Your task to perform on an android device: clear history in the chrome app Image 0: 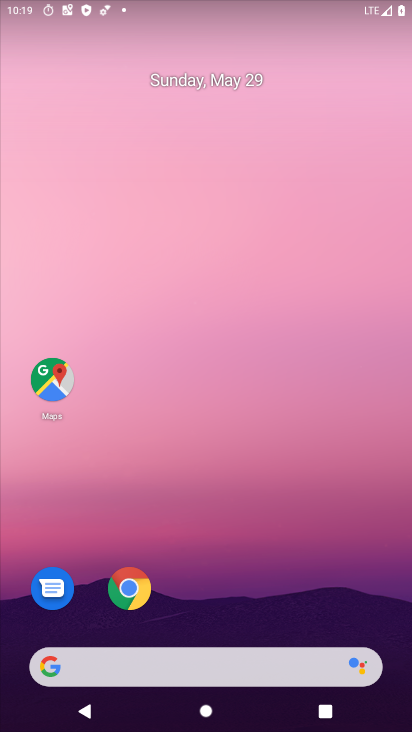
Step 0: drag from (240, 581) to (246, 202)
Your task to perform on an android device: clear history in the chrome app Image 1: 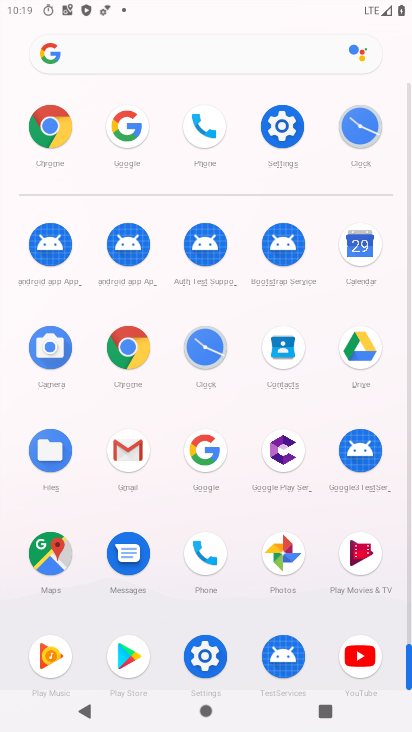
Step 1: click (145, 353)
Your task to perform on an android device: clear history in the chrome app Image 2: 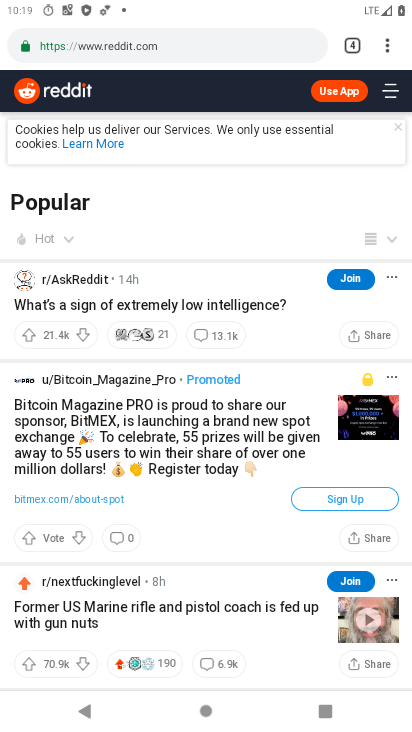
Step 2: click (385, 49)
Your task to perform on an android device: clear history in the chrome app Image 3: 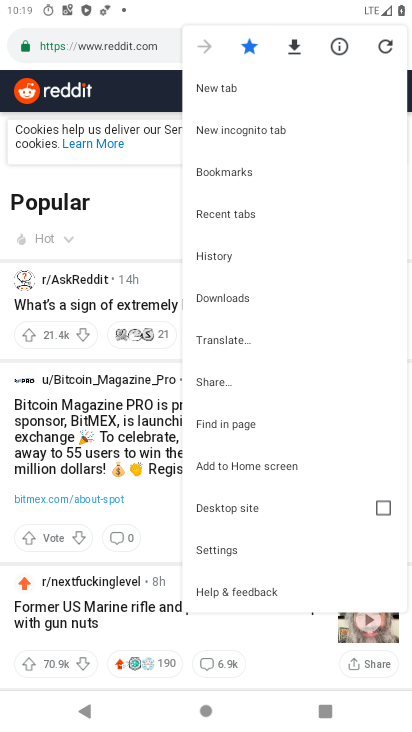
Step 3: click (225, 257)
Your task to perform on an android device: clear history in the chrome app Image 4: 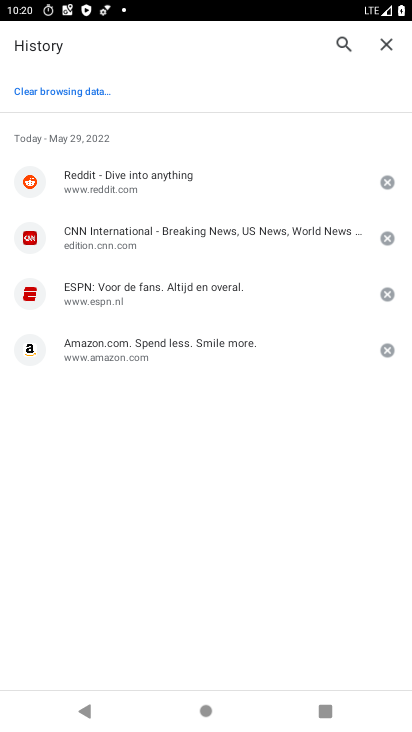
Step 4: click (62, 94)
Your task to perform on an android device: clear history in the chrome app Image 5: 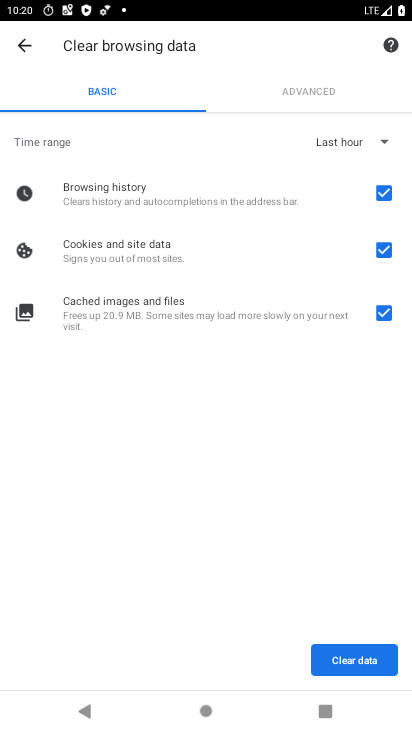
Step 5: click (352, 674)
Your task to perform on an android device: clear history in the chrome app Image 6: 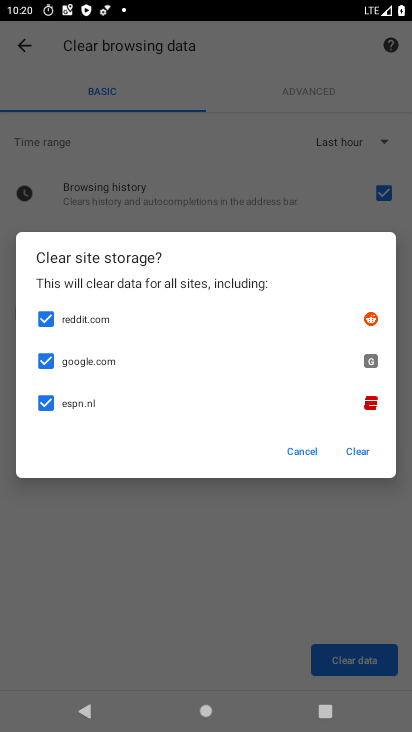
Step 6: click (357, 456)
Your task to perform on an android device: clear history in the chrome app Image 7: 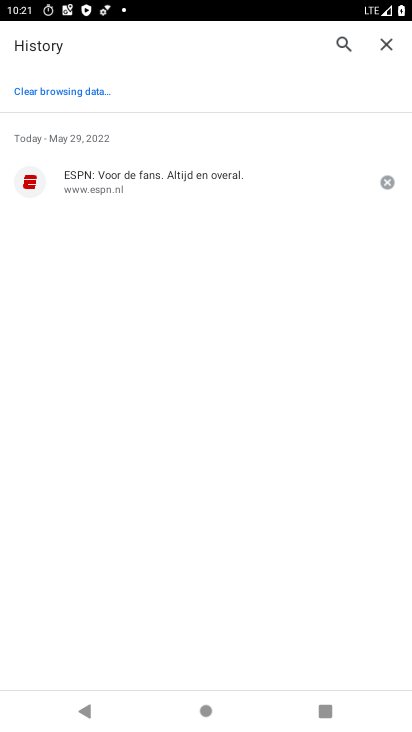
Step 7: click (394, 184)
Your task to perform on an android device: clear history in the chrome app Image 8: 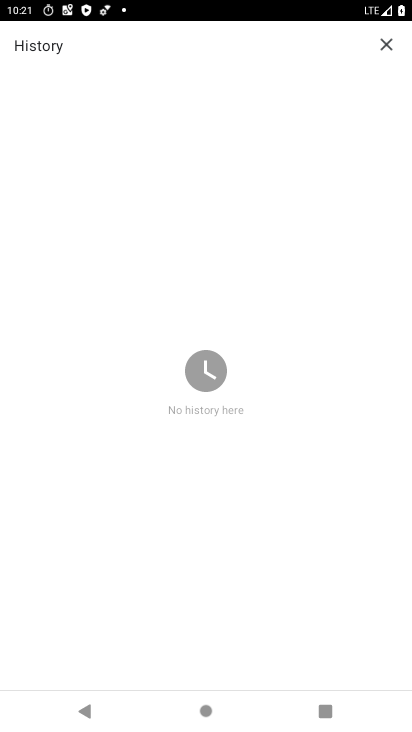
Step 8: task complete